Your task to perform on an android device: Open Yahoo.com Image 0: 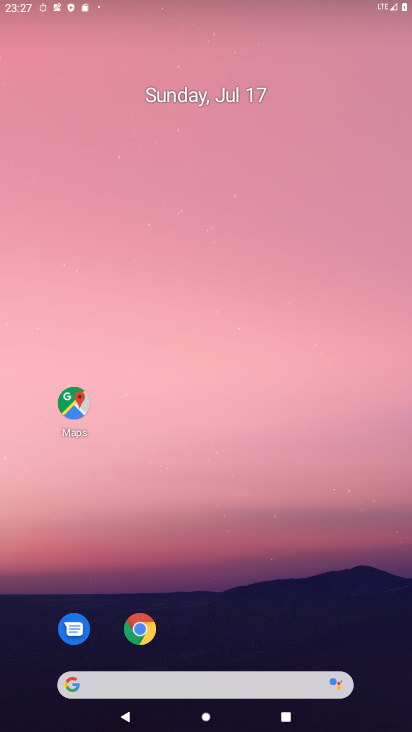
Step 0: drag from (230, 728) to (230, 219)
Your task to perform on an android device: Open Yahoo.com Image 1: 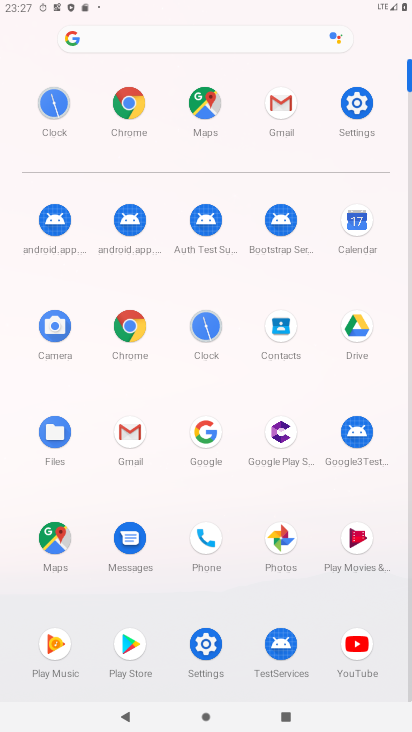
Step 1: click (129, 96)
Your task to perform on an android device: Open Yahoo.com Image 2: 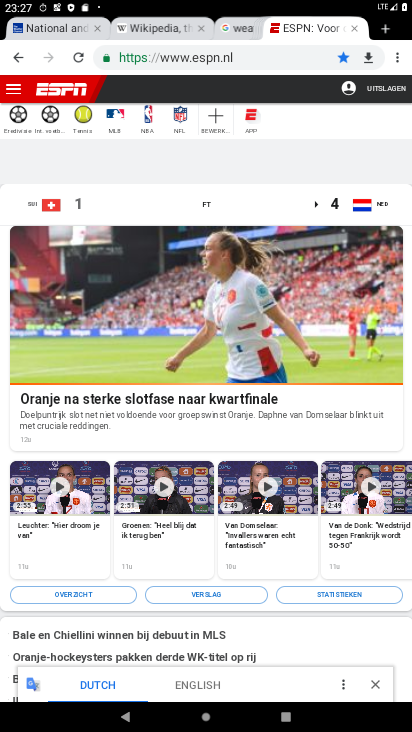
Step 2: click (397, 58)
Your task to perform on an android device: Open Yahoo.com Image 3: 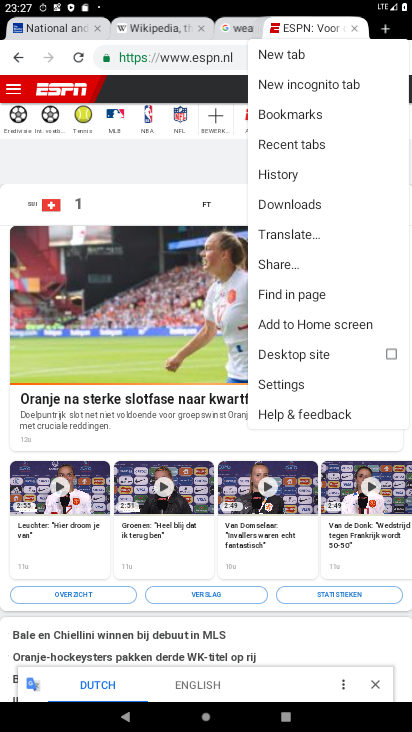
Step 3: click (276, 58)
Your task to perform on an android device: Open Yahoo.com Image 4: 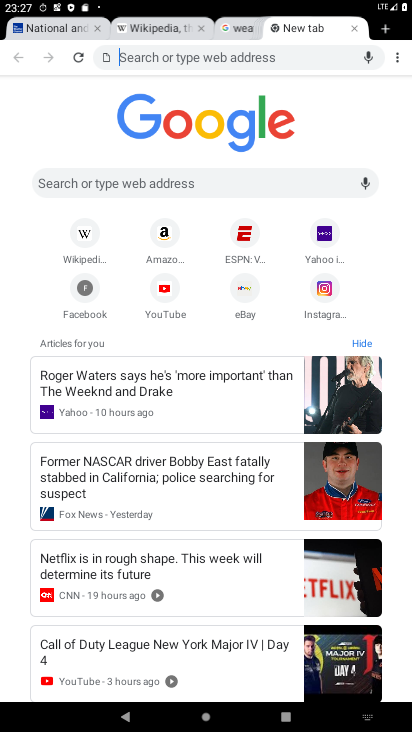
Step 4: click (323, 235)
Your task to perform on an android device: Open Yahoo.com Image 5: 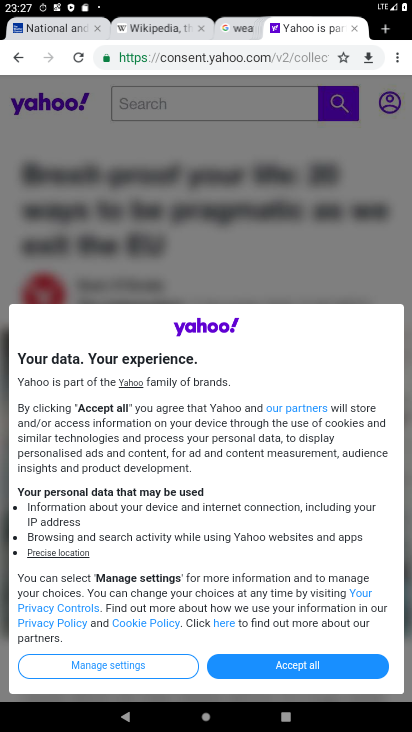
Step 5: click (282, 660)
Your task to perform on an android device: Open Yahoo.com Image 6: 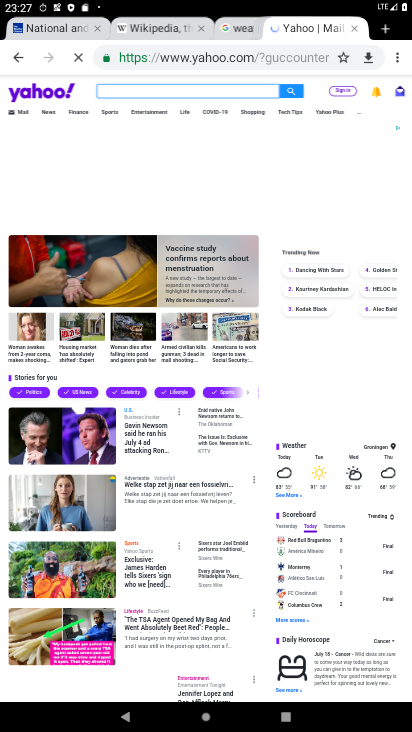
Step 6: task complete